Your task to perform on an android device: change notification settings in the gmail app Image 0: 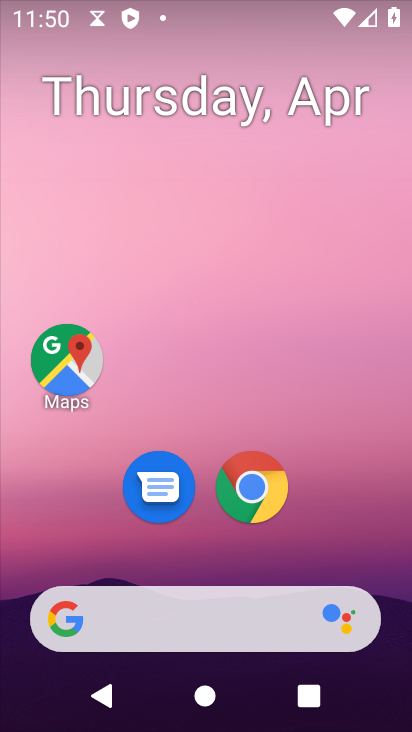
Step 0: drag from (310, 509) to (350, 239)
Your task to perform on an android device: change notification settings in the gmail app Image 1: 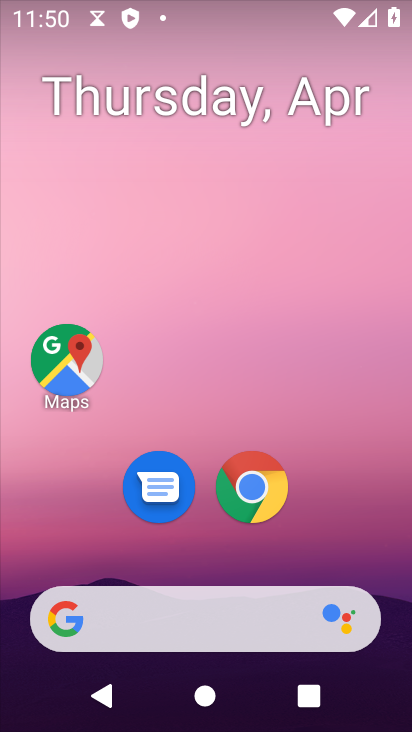
Step 1: drag from (385, 529) to (360, 229)
Your task to perform on an android device: change notification settings in the gmail app Image 2: 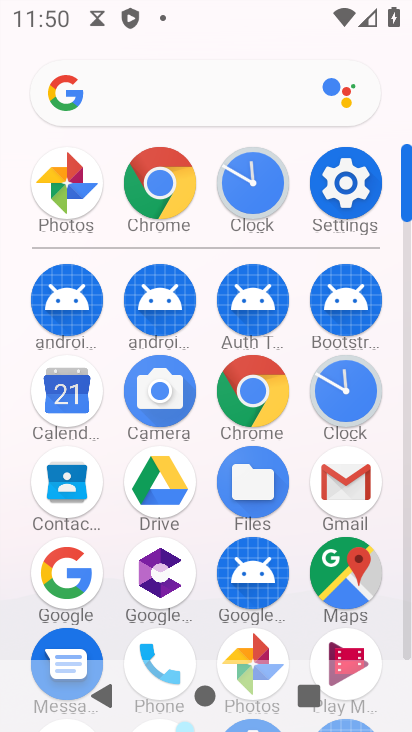
Step 2: click (357, 169)
Your task to perform on an android device: change notification settings in the gmail app Image 3: 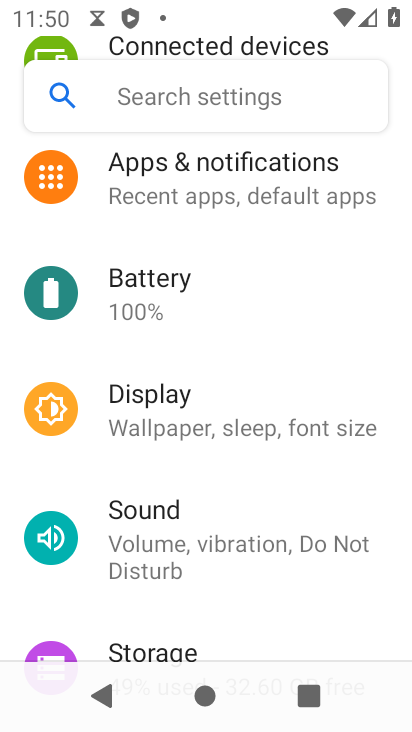
Step 3: click (262, 171)
Your task to perform on an android device: change notification settings in the gmail app Image 4: 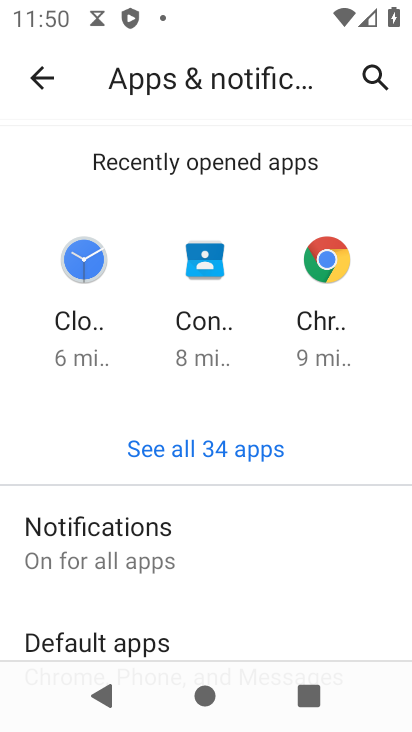
Step 4: click (182, 547)
Your task to perform on an android device: change notification settings in the gmail app Image 5: 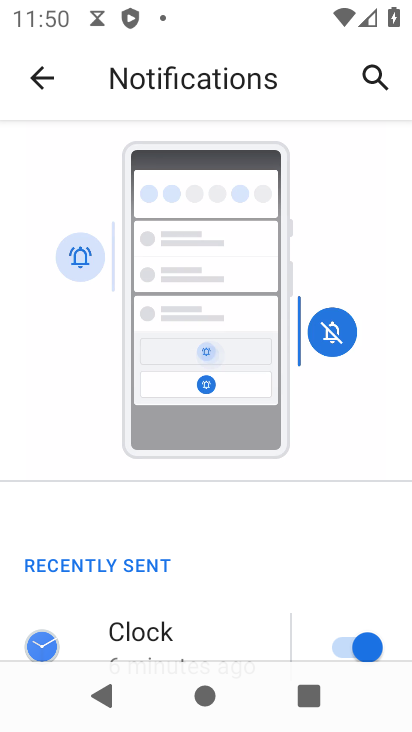
Step 5: drag from (198, 598) to (341, 190)
Your task to perform on an android device: change notification settings in the gmail app Image 6: 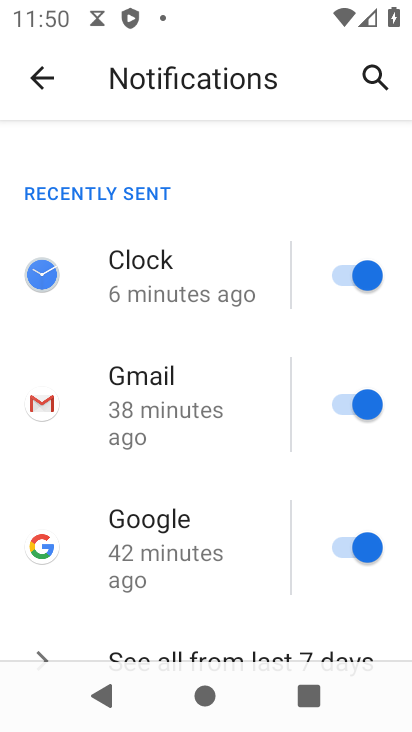
Step 6: drag from (229, 574) to (258, 355)
Your task to perform on an android device: change notification settings in the gmail app Image 7: 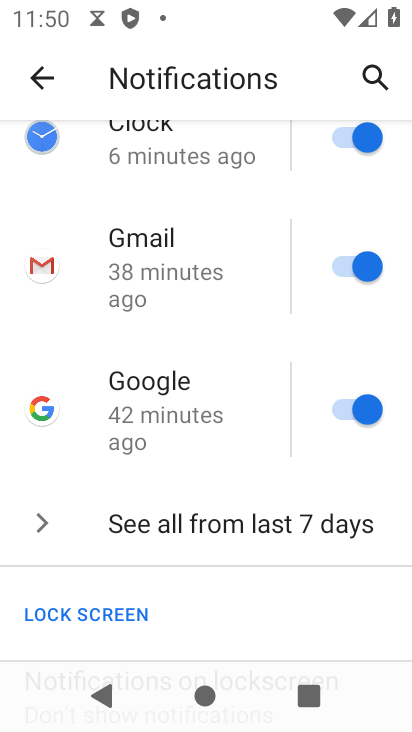
Step 7: click (265, 517)
Your task to perform on an android device: change notification settings in the gmail app Image 8: 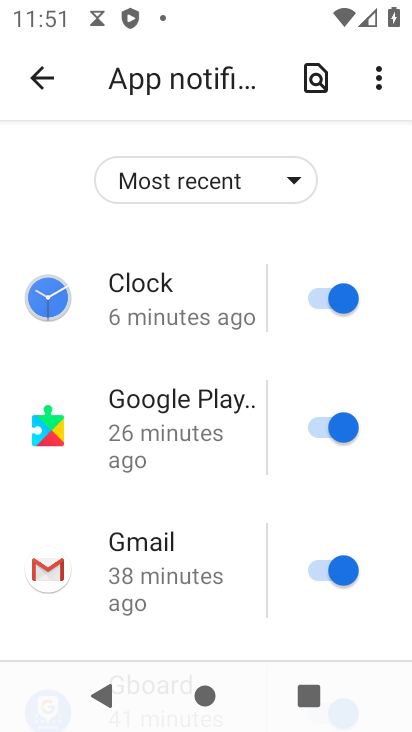
Step 8: click (325, 290)
Your task to perform on an android device: change notification settings in the gmail app Image 9: 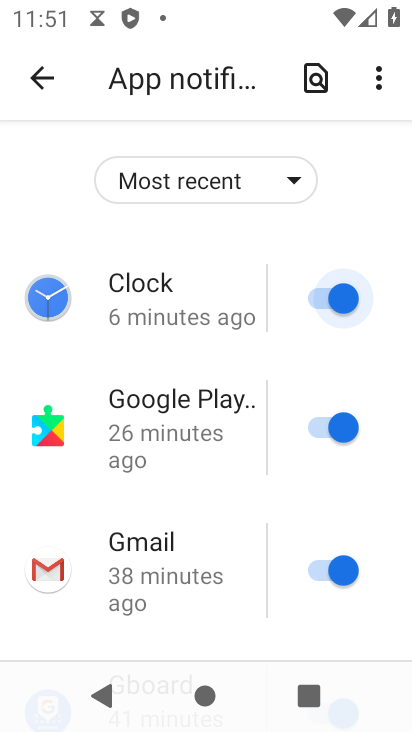
Step 9: click (325, 415)
Your task to perform on an android device: change notification settings in the gmail app Image 10: 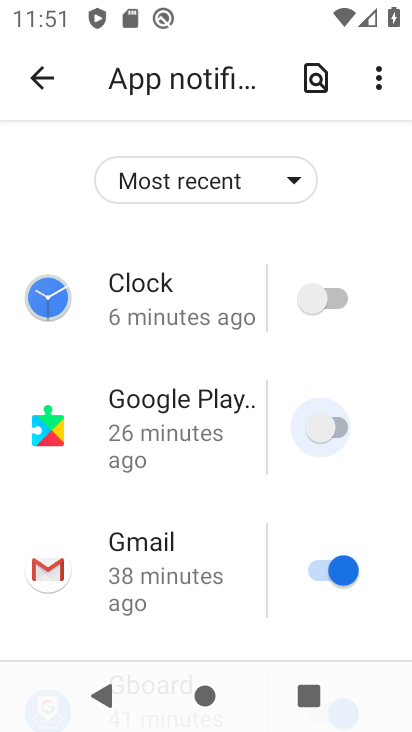
Step 10: click (333, 555)
Your task to perform on an android device: change notification settings in the gmail app Image 11: 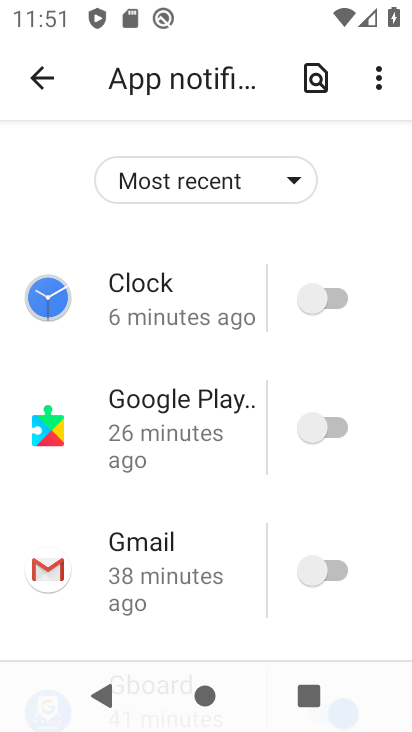
Step 11: drag from (175, 593) to (227, 232)
Your task to perform on an android device: change notification settings in the gmail app Image 12: 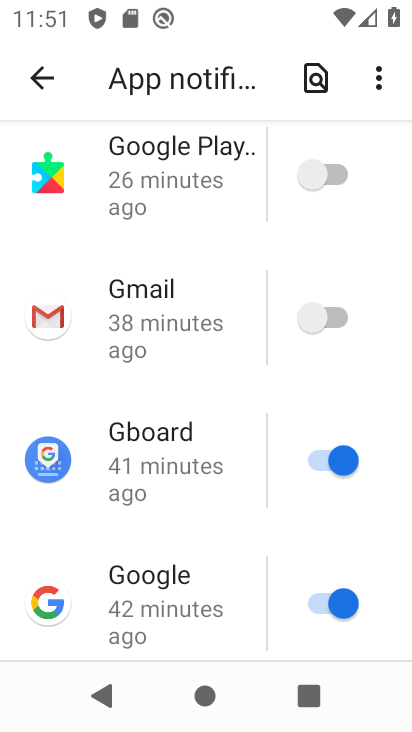
Step 12: click (317, 460)
Your task to perform on an android device: change notification settings in the gmail app Image 13: 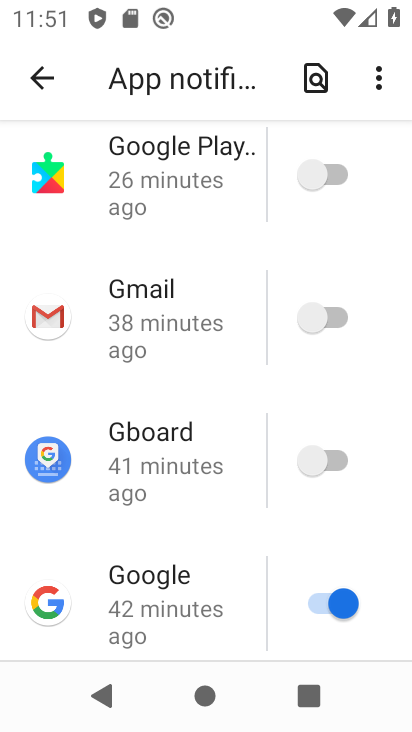
Step 13: click (339, 597)
Your task to perform on an android device: change notification settings in the gmail app Image 14: 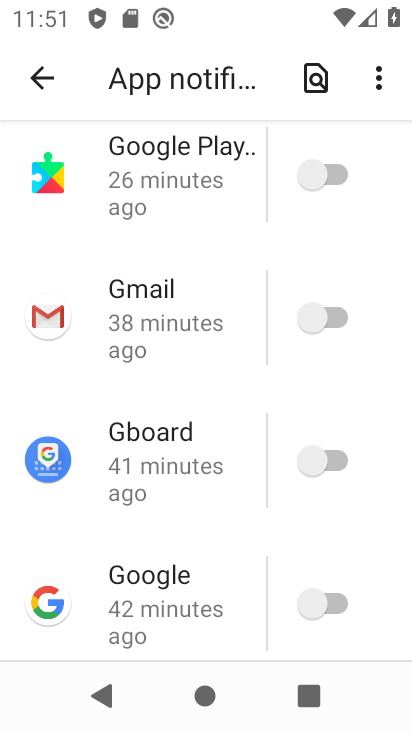
Step 14: drag from (201, 523) to (214, 311)
Your task to perform on an android device: change notification settings in the gmail app Image 15: 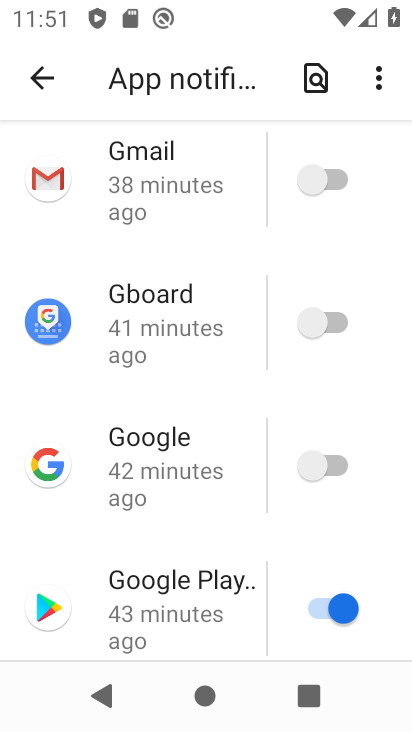
Step 15: drag from (194, 527) to (196, 137)
Your task to perform on an android device: change notification settings in the gmail app Image 16: 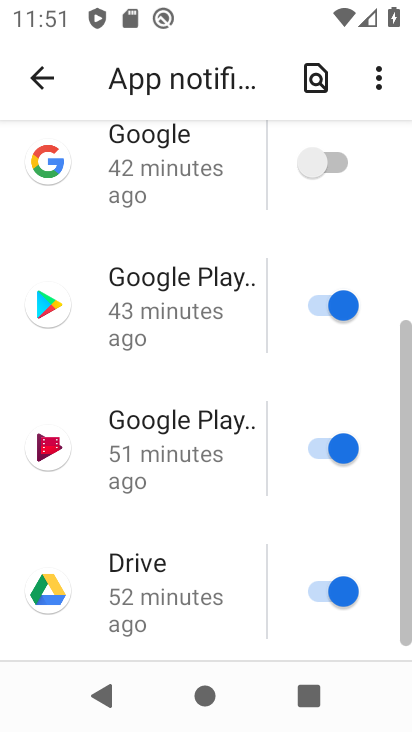
Step 16: click (304, 312)
Your task to perform on an android device: change notification settings in the gmail app Image 17: 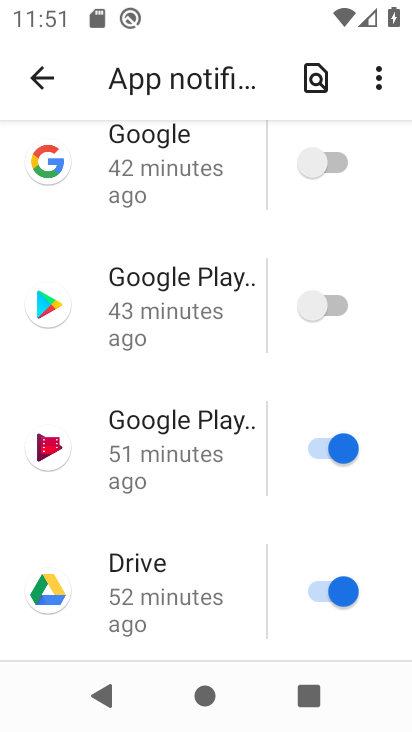
Step 17: click (324, 445)
Your task to perform on an android device: change notification settings in the gmail app Image 18: 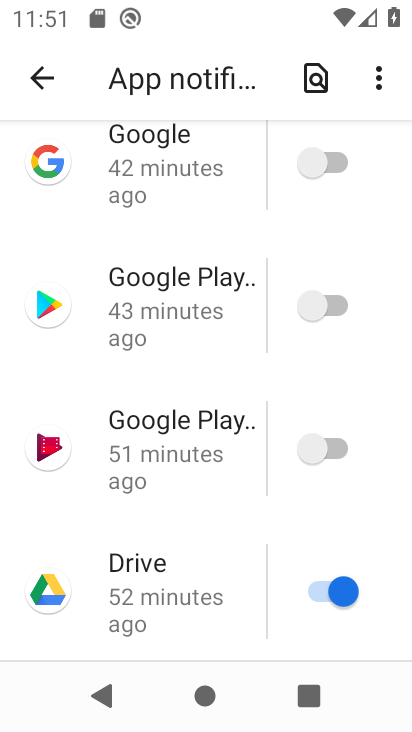
Step 18: click (323, 604)
Your task to perform on an android device: change notification settings in the gmail app Image 19: 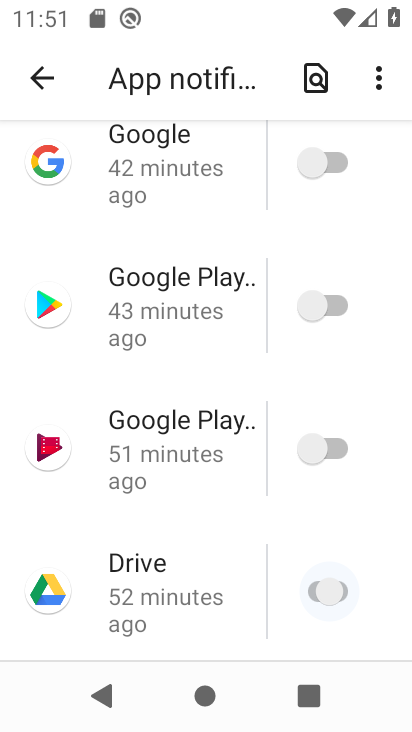
Step 19: drag from (117, 564) to (172, 208)
Your task to perform on an android device: change notification settings in the gmail app Image 20: 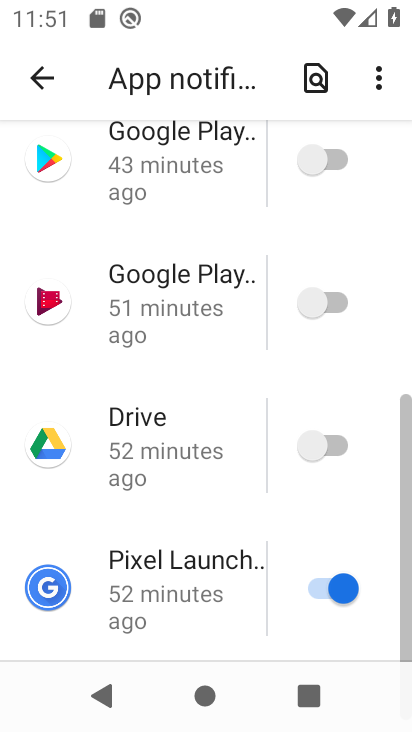
Step 20: click (301, 592)
Your task to perform on an android device: change notification settings in the gmail app Image 21: 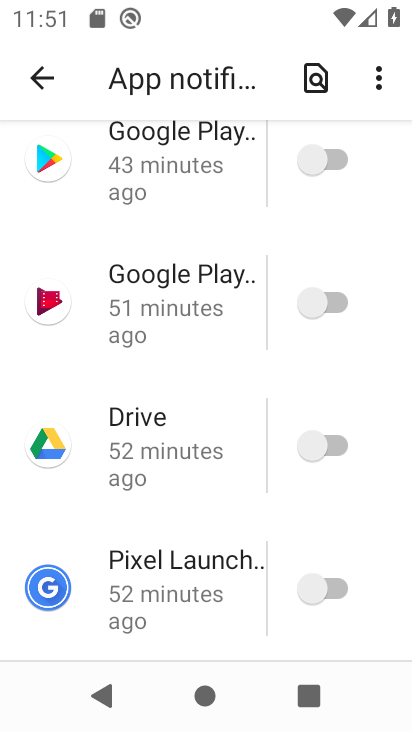
Step 21: task complete